Your task to perform on an android device: Go to network settings Image 0: 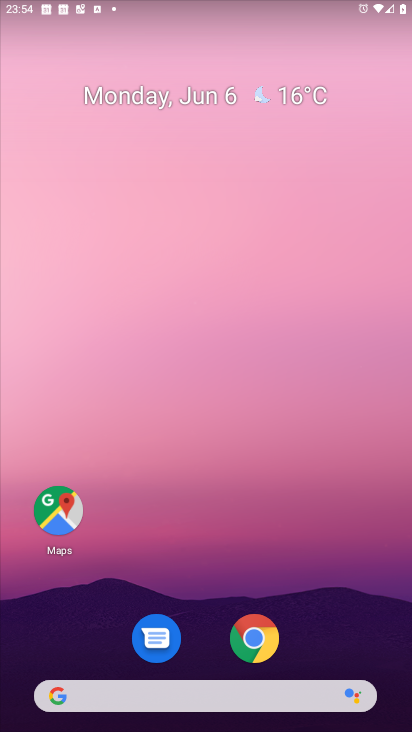
Step 0: drag from (257, 714) to (252, 88)
Your task to perform on an android device: Go to network settings Image 1: 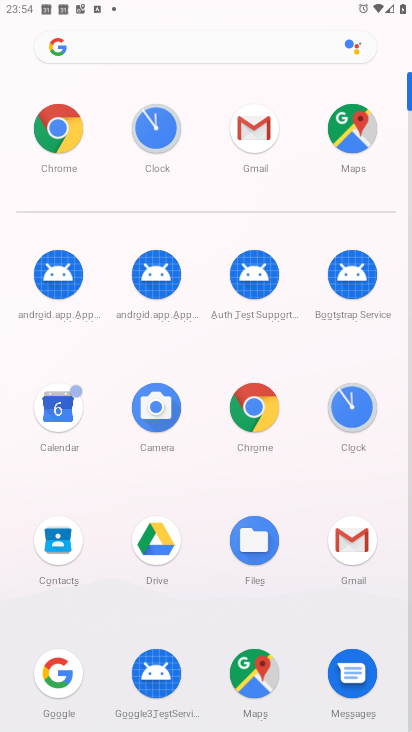
Step 1: drag from (214, 607) to (222, 325)
Your task to perform on an android device: Go to network settings Image 2: 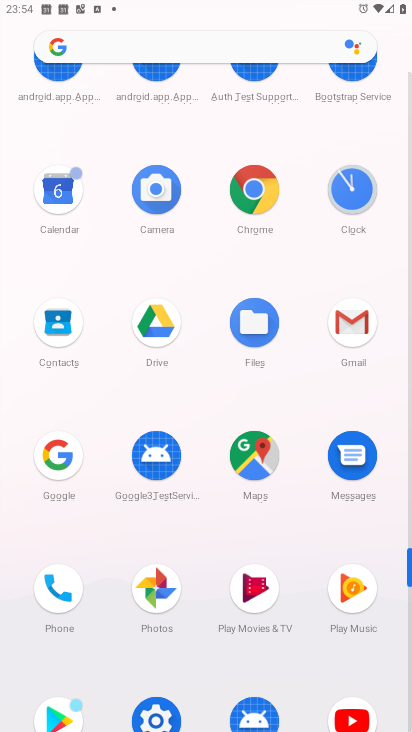
Step 2: click (158, 708)
Your task to perform on an android device: Go to network settings Image 3: 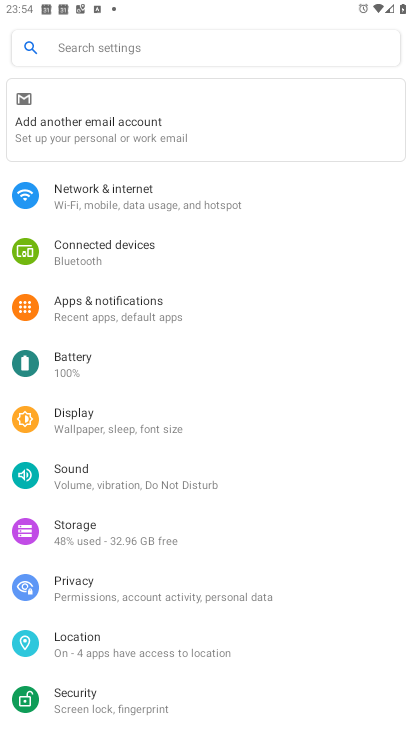
Step 3: click (140, 196)
Your task to perform on an android device: Go to network settings Image 4: 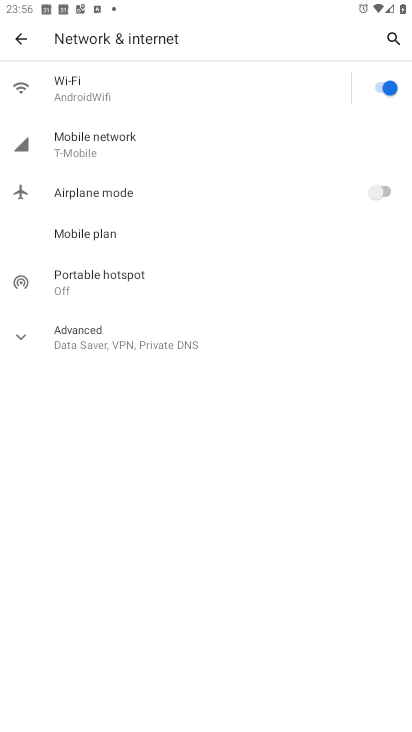
Step 4: task complete